Your task to perform on an android device: Open Android settings Image 0: 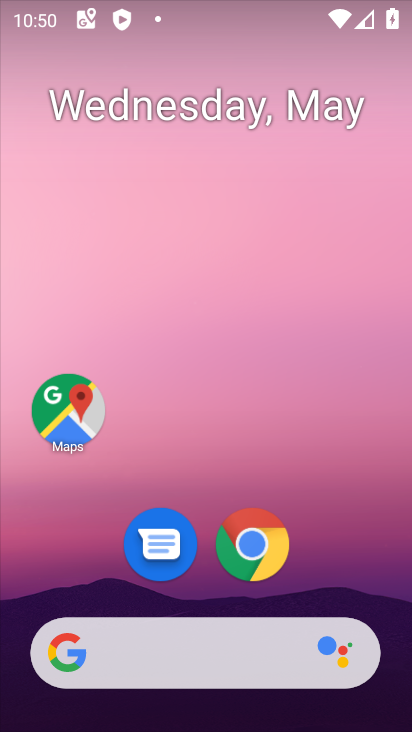
Step 0: drag from (340, 653) to (376, 76)
Your task to perform on an android device: Open Android settings Image 1: 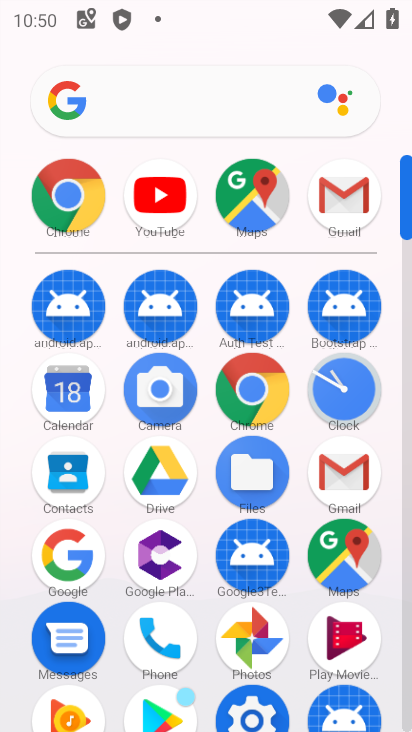
Step 1: click (255, 707)
Your task to perform on an android device: Open Android settings Image 2: 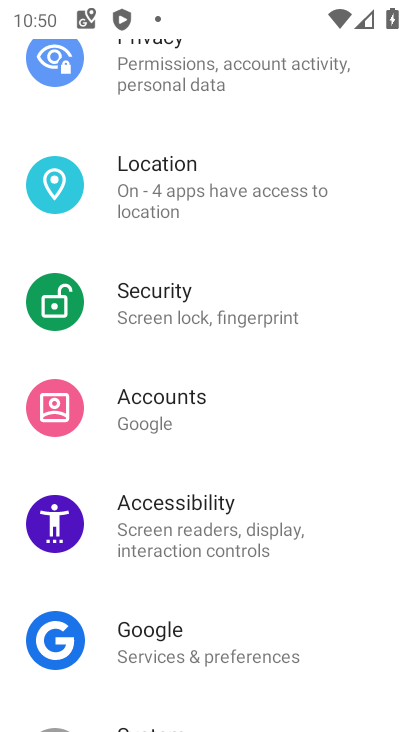
Step 2: drag from (292, 682) to (211, 128)
Your task to perform on an android device: Open Android settings Image 3: 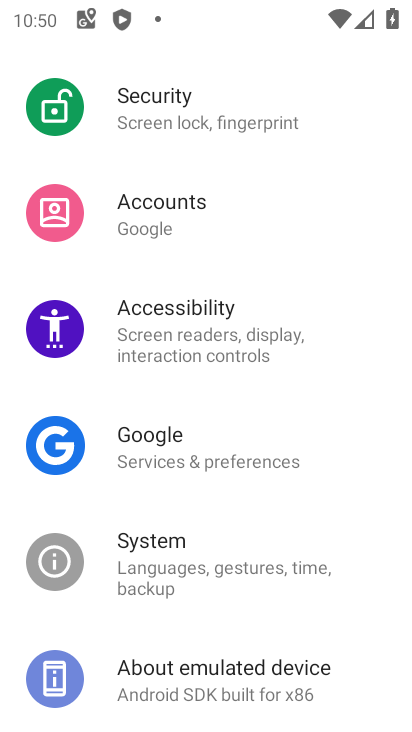
Step 3: click (227, 683)
Your task to perform on an android device: Open Android settings Image 4: 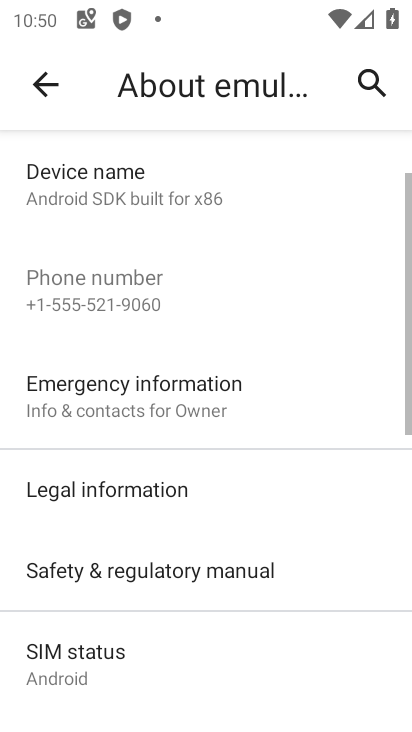
Step 4: drag from (238, 633) to (249, 35)
Your task to perform on an android device: Open Android settings Image 5: 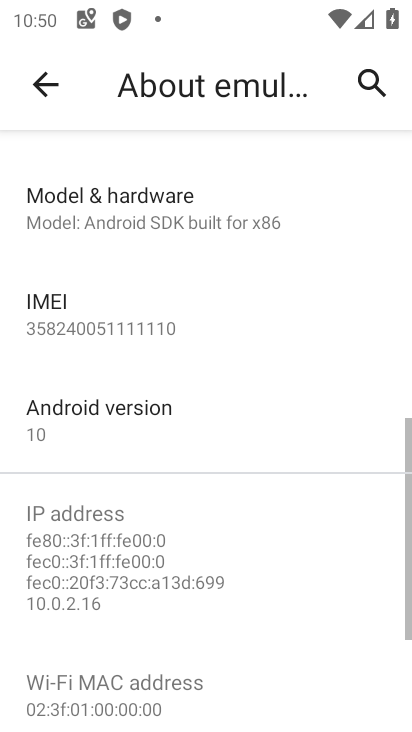
Step 5: drag from (140, 597) to (120, 153)
Your task to perform on an android device: Open Android settings Image 6: 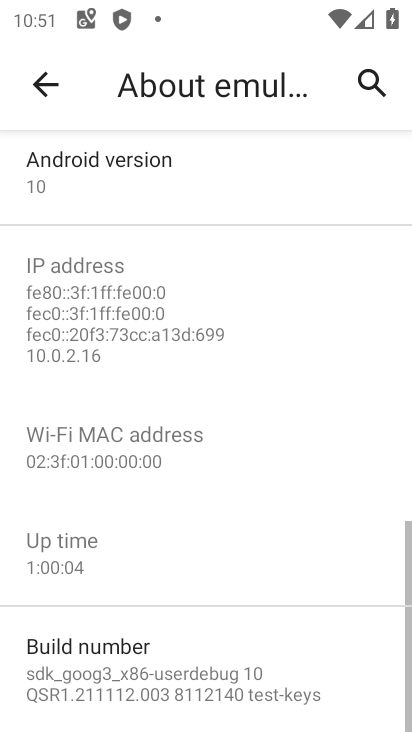
Step 6: drag from (103, 649) to (111, 399)
Your task to perform on an android device: Open Android settings Image 7: 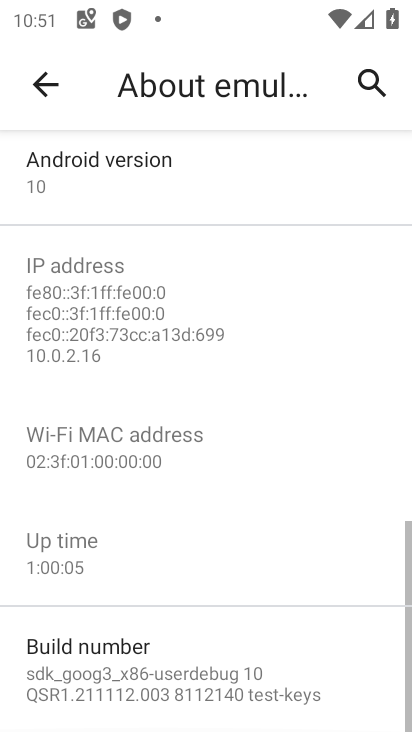
Step 7: click (154, 160)
Your task to perform on an android device: Open Android settings Image 8: 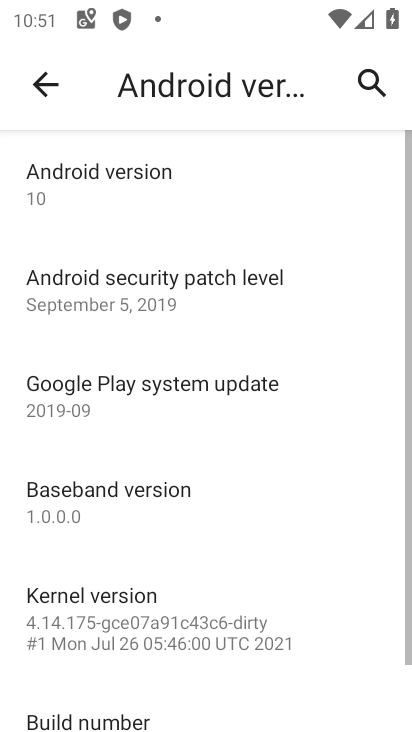
Step 8: task complete